Your task to perform on an android device: find snoozed emails in the gmail app Image 0: 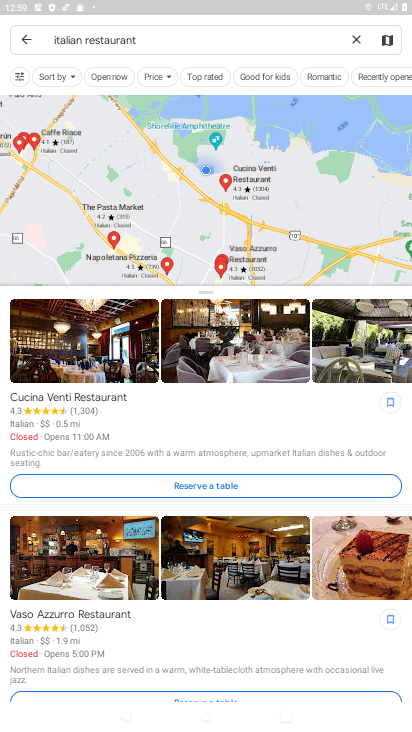
Step 0: press home button
Your task to perform on an android device: find snoozed emails in the gmail app Image 1: 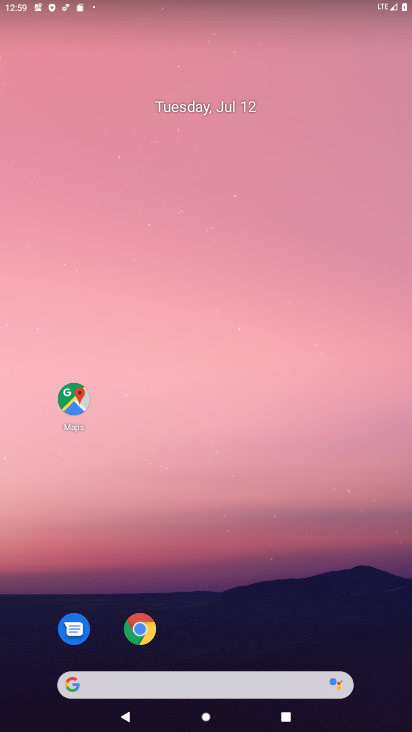
Step 1: drag from (279, 689) to (306, 6)
Your task to perform on an android device: find snoozed emails in the gmail app Image 2: 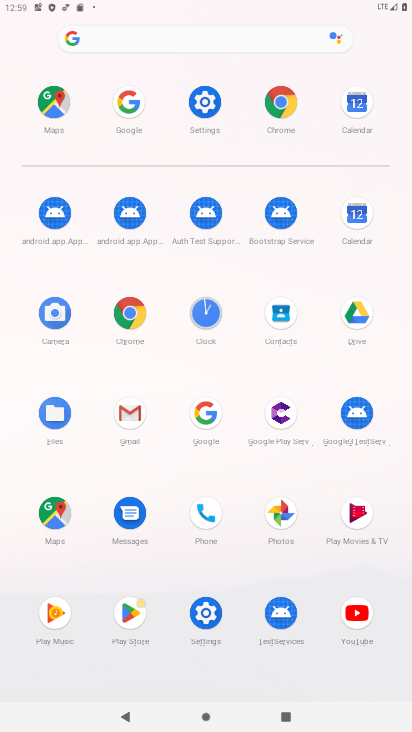
Step 2: click (118, 418)
Your task to perform on an android device: find snoozed emails in the gmail app Image 3: 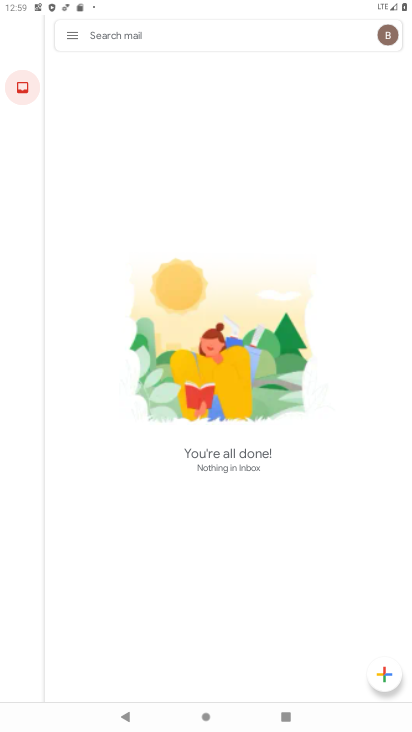
Step 3: click (71, 47)
Your task to perform on an android device: find snoozed emails in the gmail app Image 4: 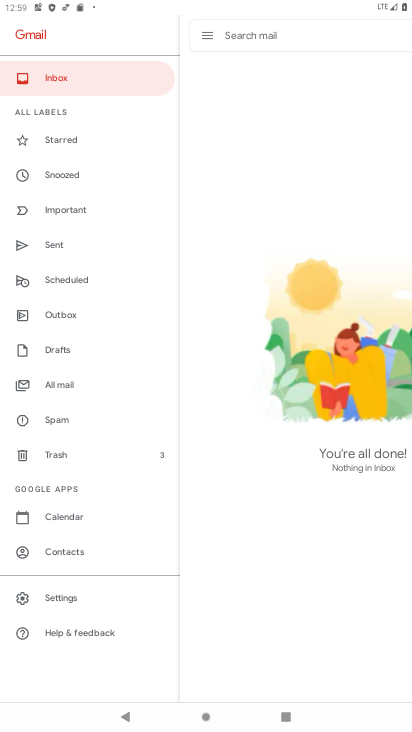
Step 4: click (90, 176)
Your task to perform on an android device: find snoozed emails in the gmail app Image 5: 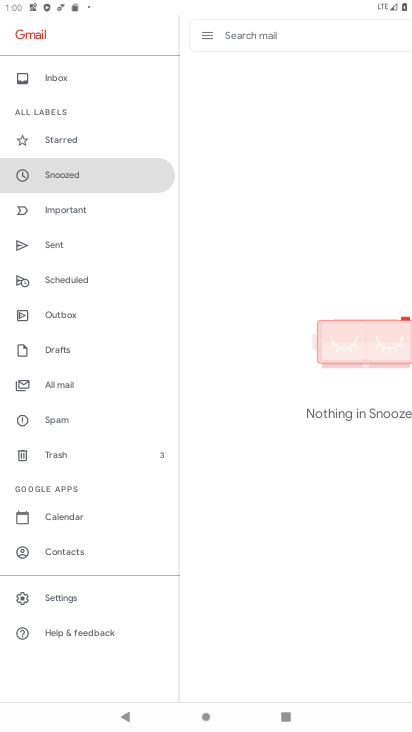
Step 5: task complete